Your task to perform on an android device: What's on my calendar tomorrow? Image 0: 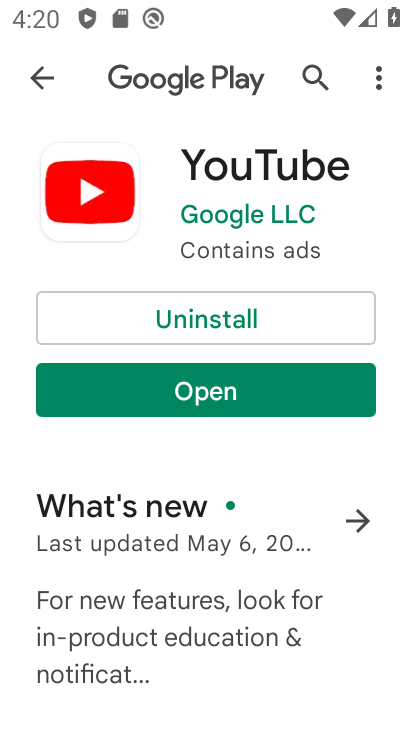
Step 0: press home button
Your task to perform on an android device: What's on my calendar tomorrow? Image 1: 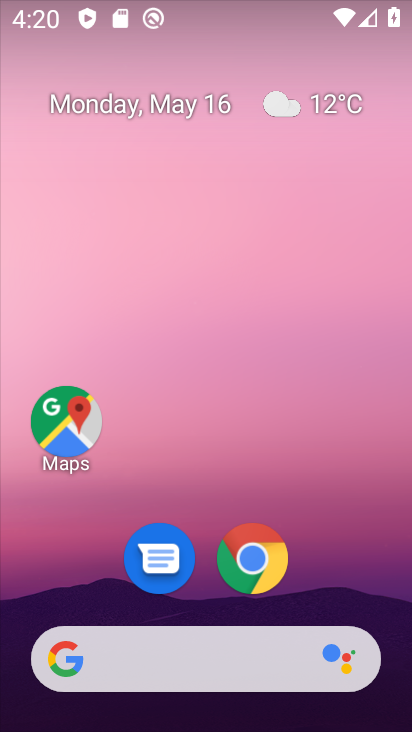
Step 1: drag from (337, 449) to (329, 169)
Your task to perform on an android device: What's on my calendar tomorrow? Image 2: 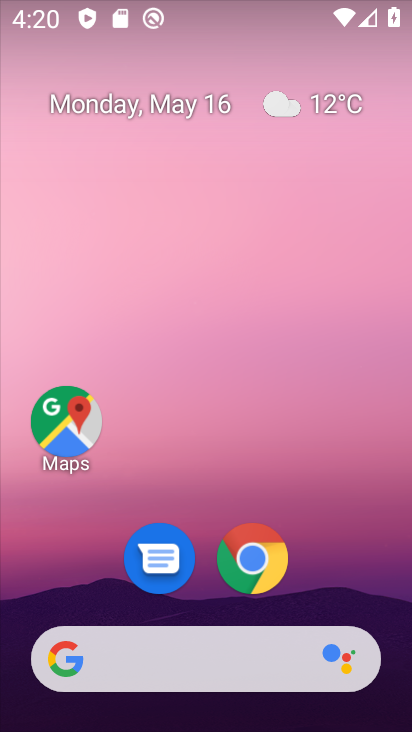
Step 2: drag from (328, 590) to (306, 163)
Your task to perform on an android device: What's on my calendar tomorrow? Image 3: 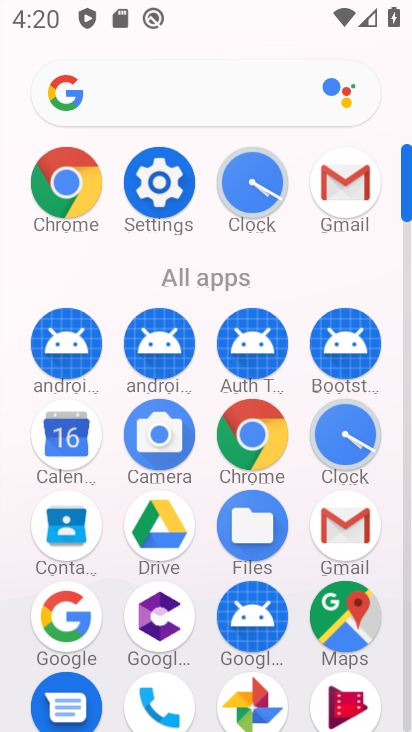
Step 3: click (70, 456)
Your task to perform on an android device: What's on my calendar tomorrow? Image 4: 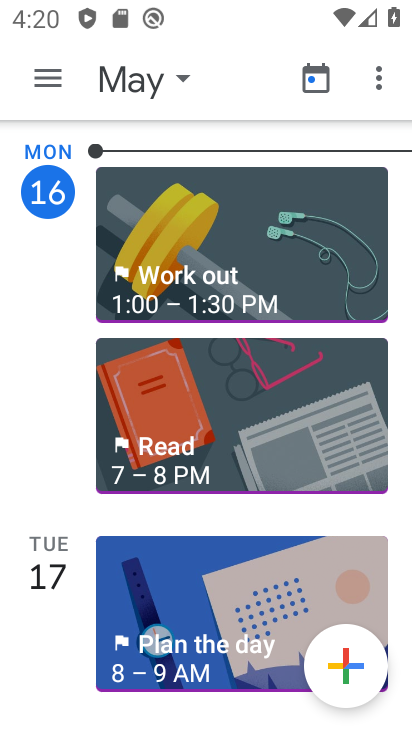
Step 4: click (150, 83)
Your task to perform on an android device: What's on my calendar tomorrow? Image 5: 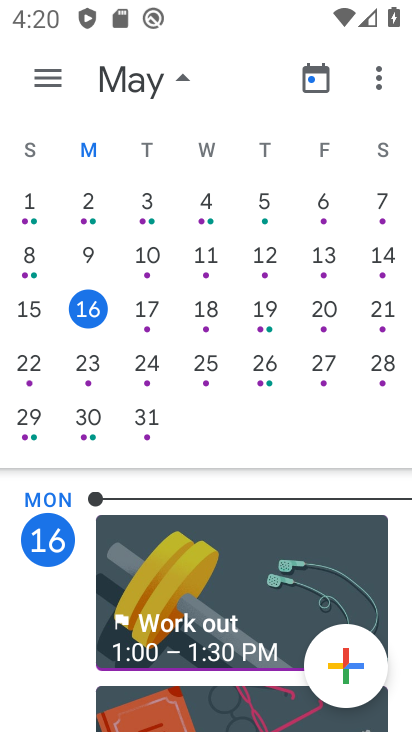
Step 5: click (138, 318)
Your task to perform on an android device: What's on my calendar tomorrow? Image 6: 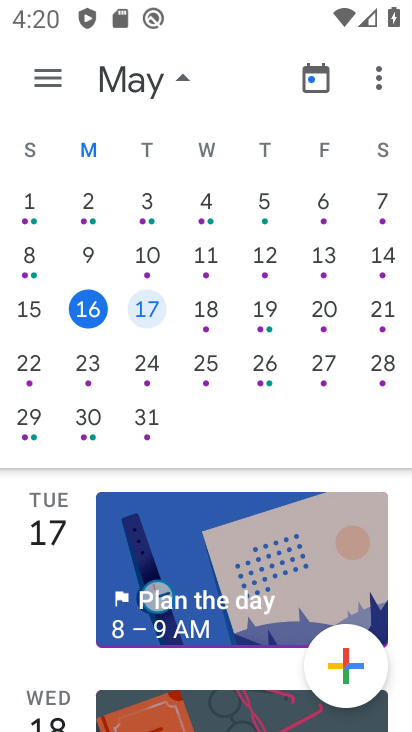
Step 6: click (149, 316)
Your task to perform on an android device: What's on my calendar tomorrow? Image 7: 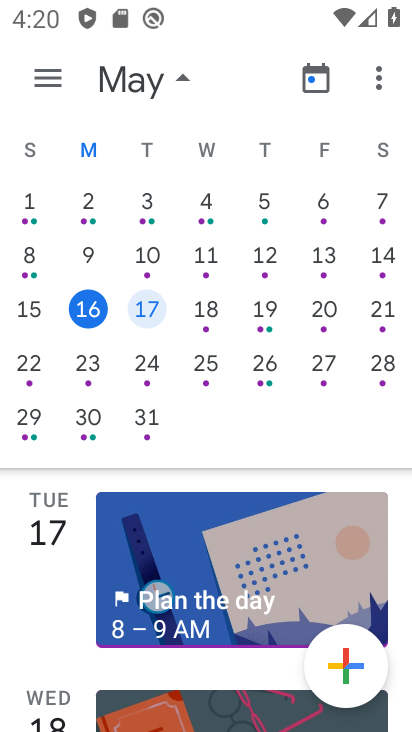
Step 7: task complete